Your task to perform on an android device: Go to Android settings Image 0: 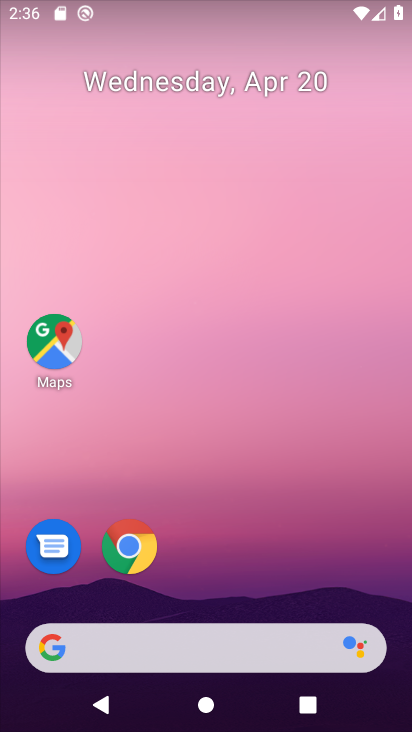
Step 0: drag from (269, 588) to (269, 423)
Your task to perform on an android device: Go to Android settings Image 1: 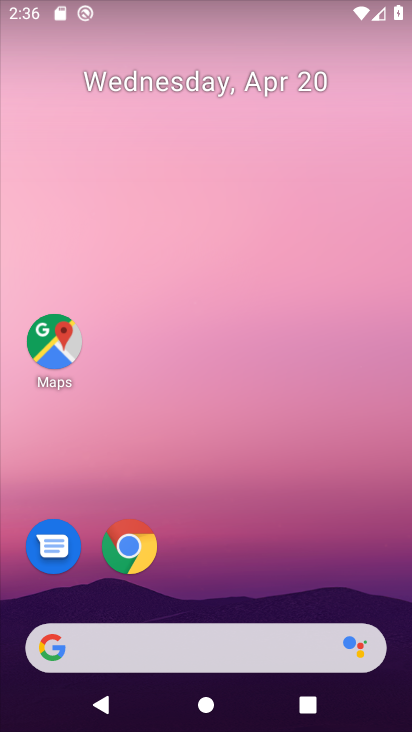
Step 1: drag from (248, 582) to (261, 372)
Your task to perform on an android device: Go to Android settings Image 2: 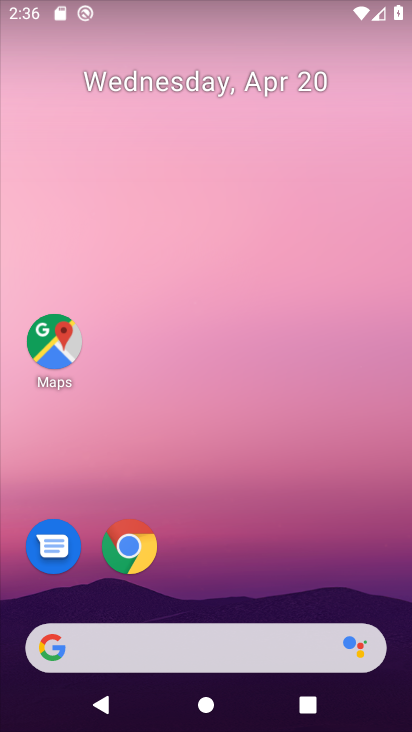
Step 2: drag from (301, 405) to (290, 292)
Your task to perform on an android device: Go to Android settings Image 3: 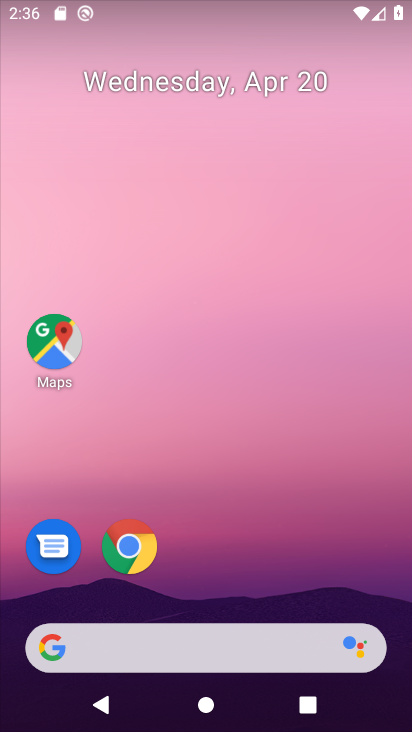
Step 3: drag from (255, 518) to (259, 240)
Your task to perform on an android device: Go to Android settings Image 4: 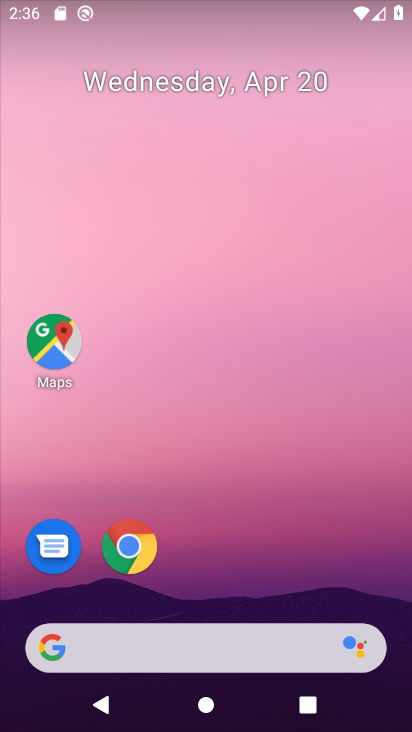
Step 4: drag from (256, 565) to (290, 226)
Your task to perform on an android device: Go to Android settings Image 5: 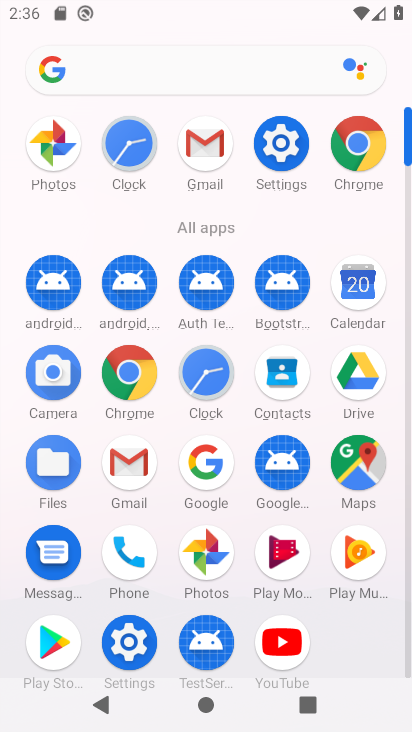
Step 5: click (272, 145)
Your task to perform on an android device: Go to Android settings Image 6: 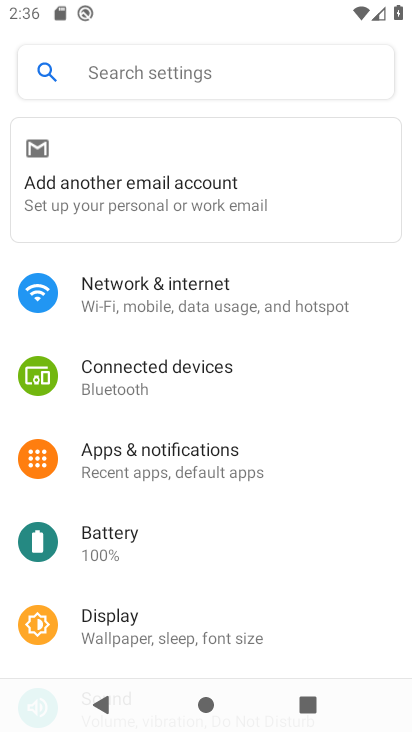
Step 6: drag from (172, 646) to (268, 118)
Your task to perform on an android device: Go to Android settings Image 7: 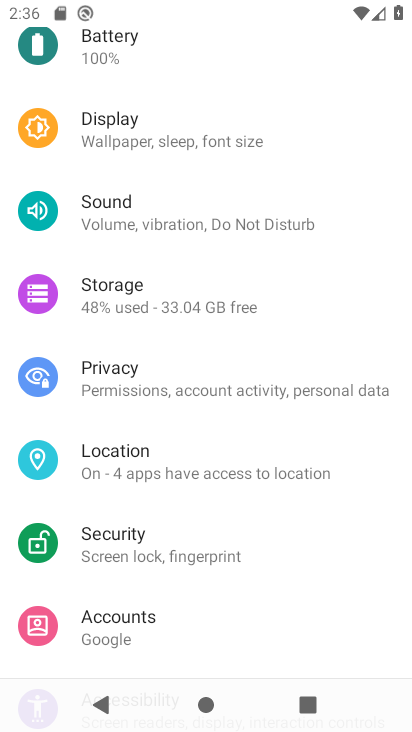
Step 7: drag from (195, 596) to (266, 86)
Your task to perform on an android device: Go to Android settings Image 8: 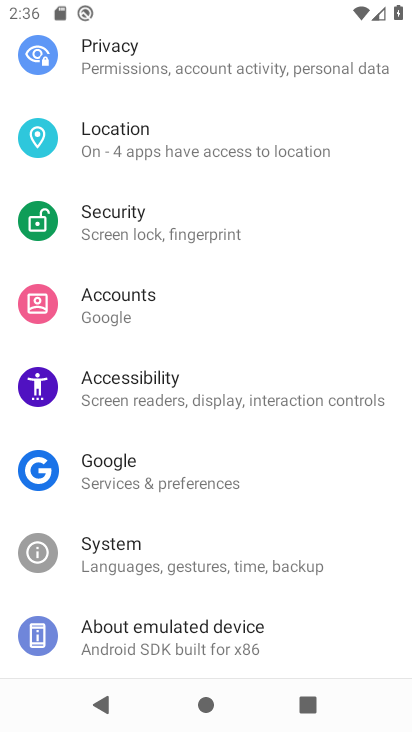
Step 8: click (164, 638)
Your task to perform on an android device: Go to Android settings Image 9: 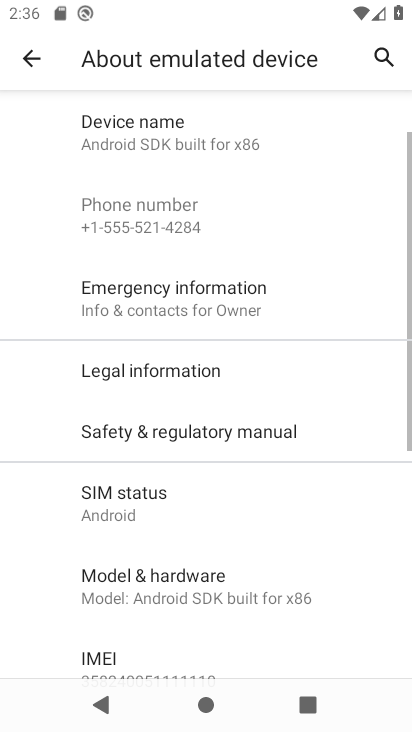
Step 9: drag from (251, 490) to (299, 124)
Your task to perform on an android device: Go to Android settings Image 10: 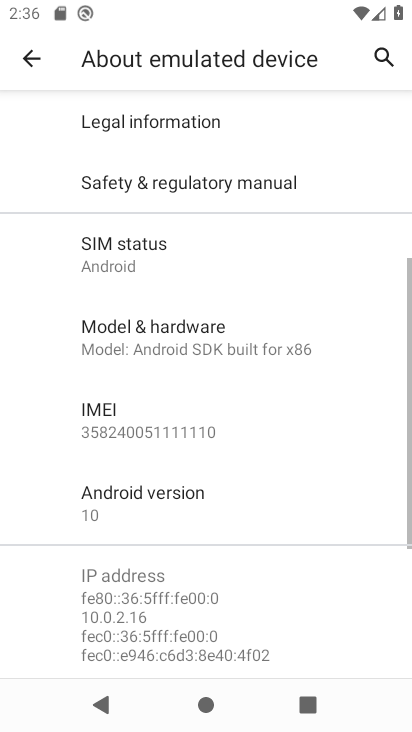
Step 10: click (200, 493)
Your task to perform on an android device: Go to Android settings Image 11: 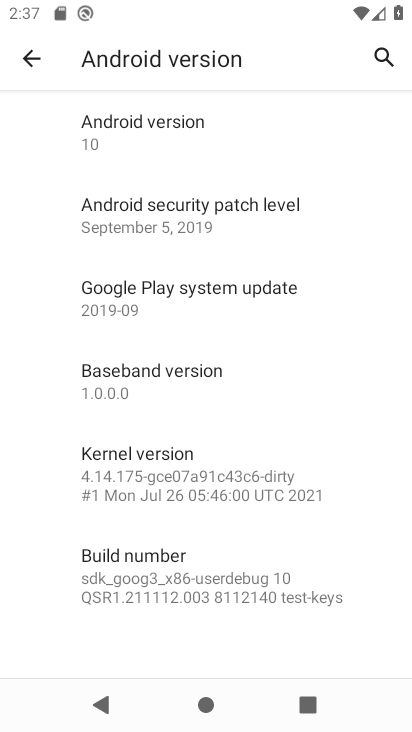
Step 11: task complete